Your task to perform on an android device: Search for "dell alienware" on walmart, select the first entry, and add it to the cart. Image 0: 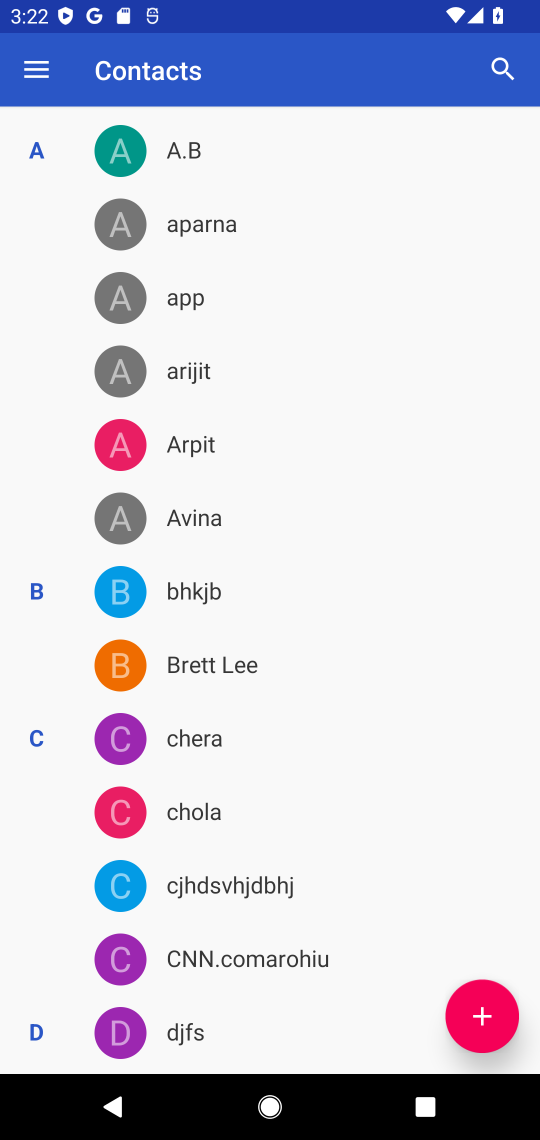
Step 0: press home button
Your task to perform on an android device: Search for "dell alienware" on walmart, select the first entry, and add it to the cart. Image 1: 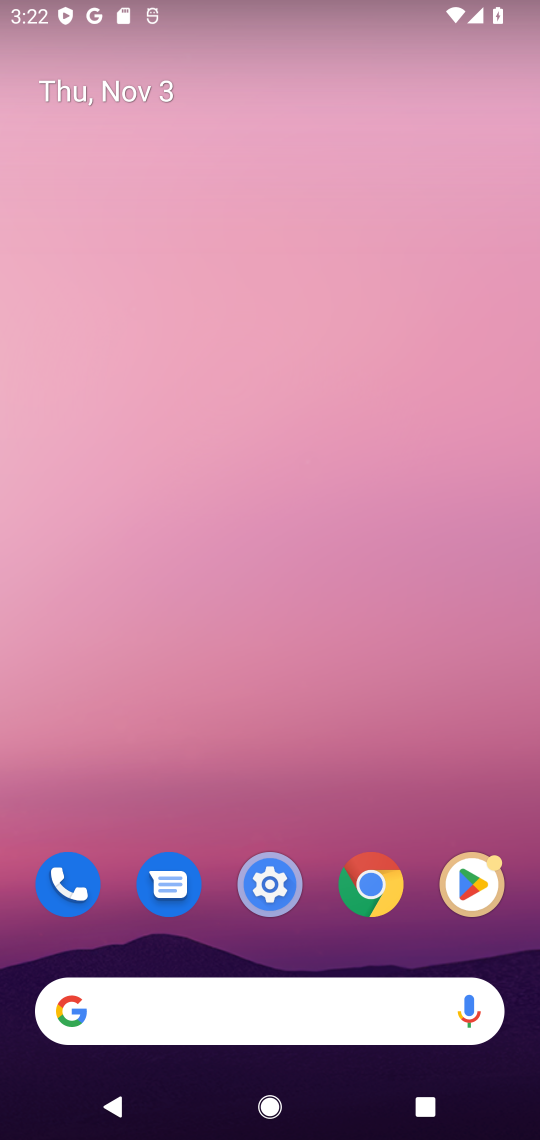
Step 1: click (107, 1001)
Your task to perform on an android device: Search for "dell alienware" on walmart, select the first entry, and add it to the cart. Image 2: 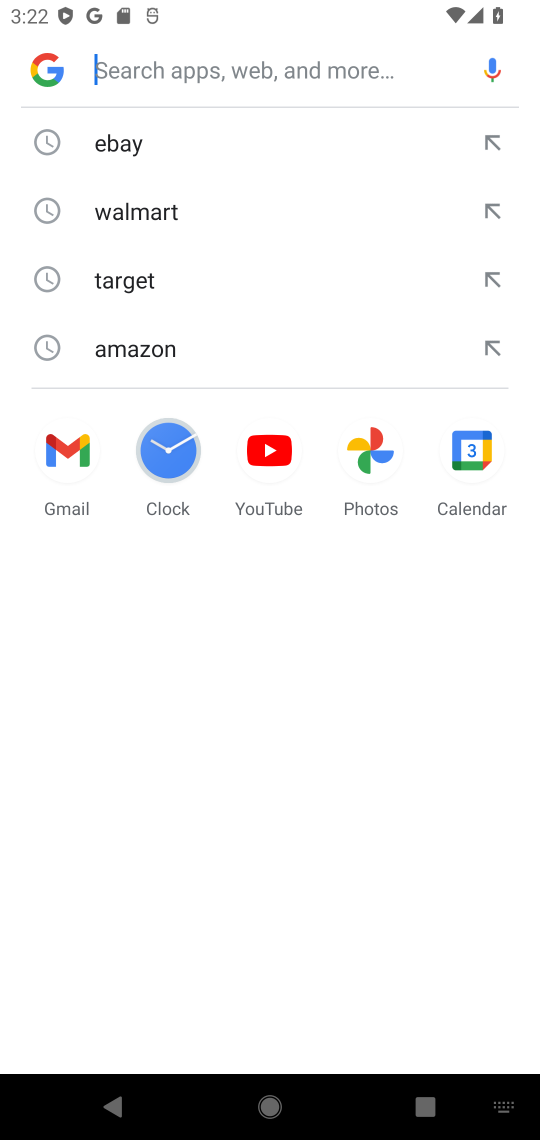
Step 2: type "walmart"
Your task to perform on an android device: Search for "dell alienware" on walmart, select the first entry, and add it to the cart. Image 3: 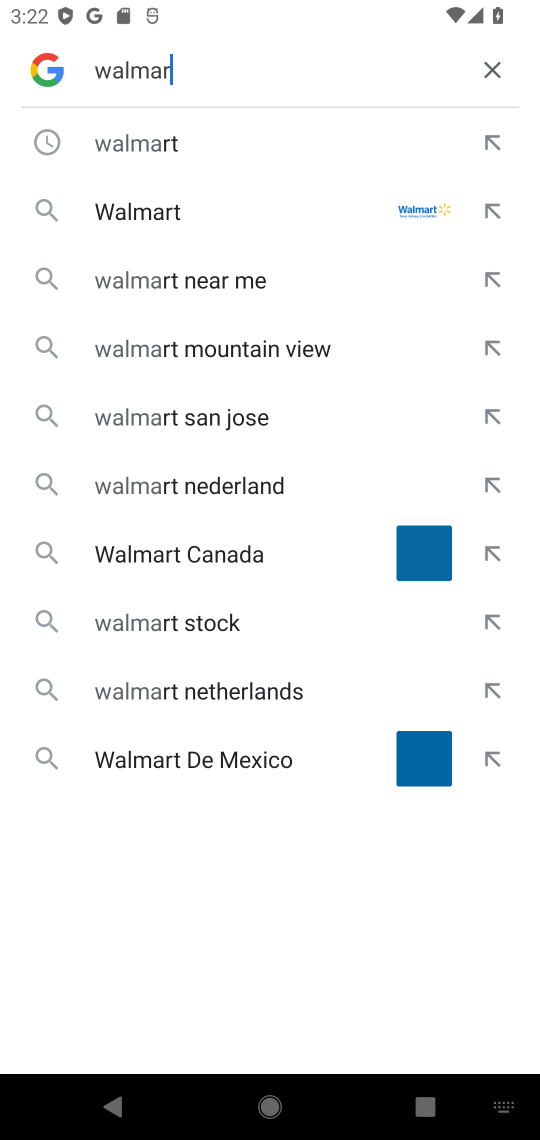
Step 3: press enter
Your task to perform on an android device: Search for "dell alienware" on walmart, select the first entry, and add it to the cart. Image 4: 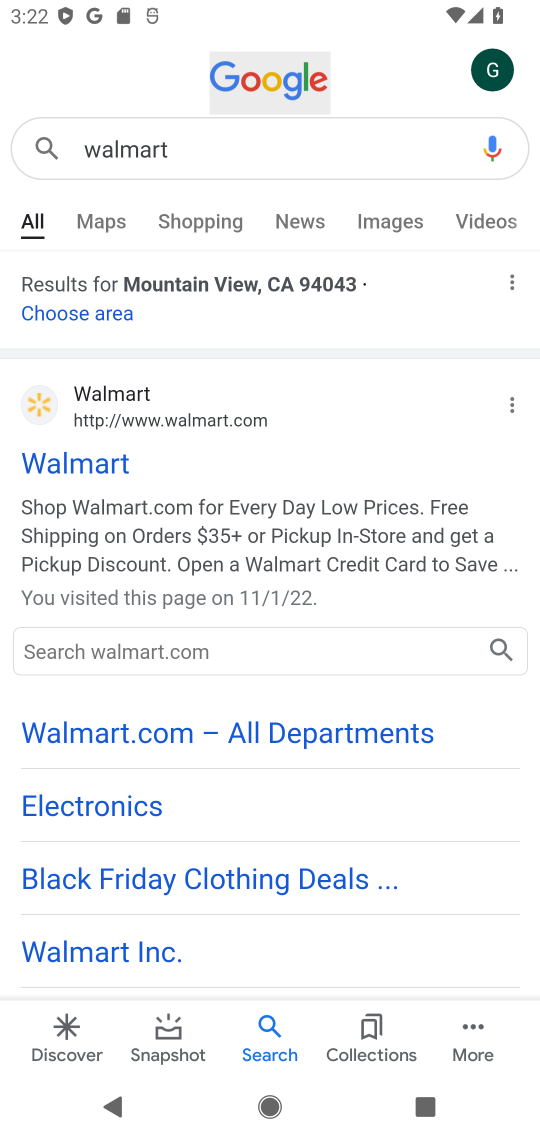
Step 4: click (68, 459)
Your task to perform on an android device: Search for "dell alienware" on walmart, select the first entry, and add it to the cart. Image 5: 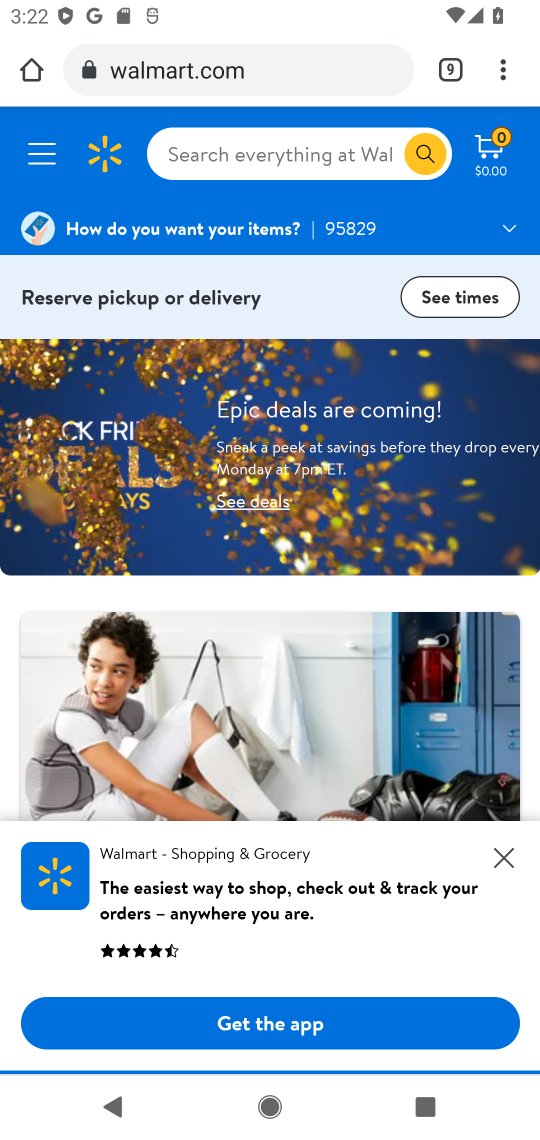
Step 5: click (179, 153)
Your task to perform on an android device: Search for "dell alienware" on walmart, select the first entry, and add it to the cart. Image 6: 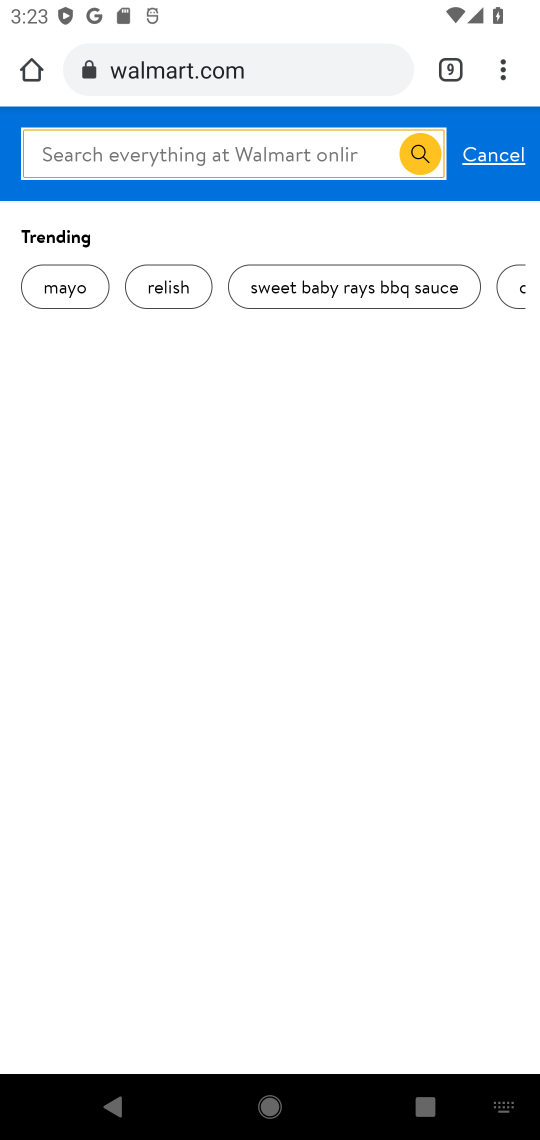
Step 6: type "dell alienware"
Your task to perform on an android device: Search for "dell alienware" on walmart, select the first entry, and add it to the cart. Image 7: 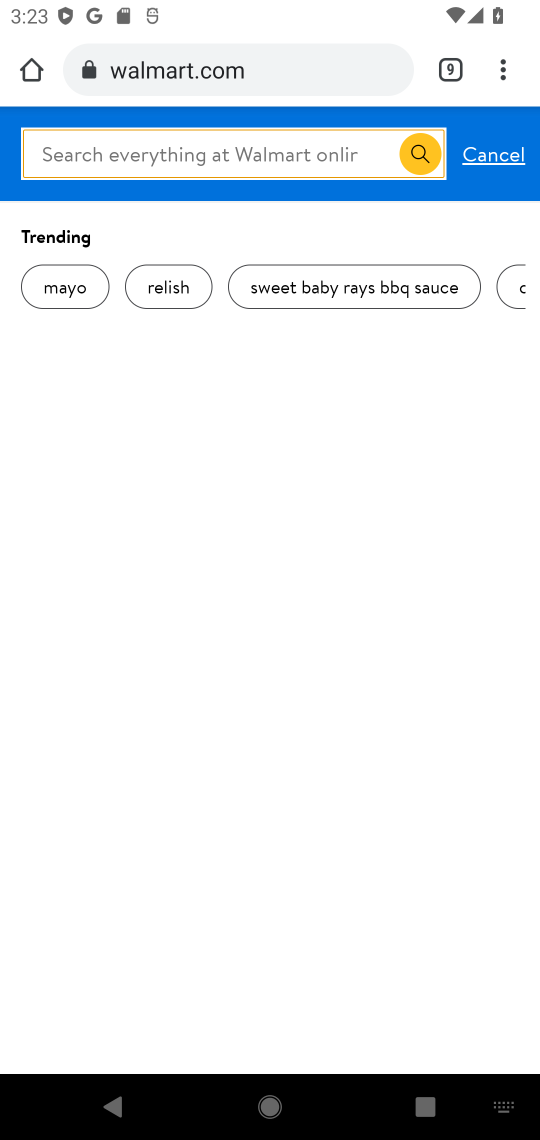
Step 7: press enter
Your task to perform on an android device: Search for "dell alienware" on walmart, select the first entry, and add it to the cart. Image 8: 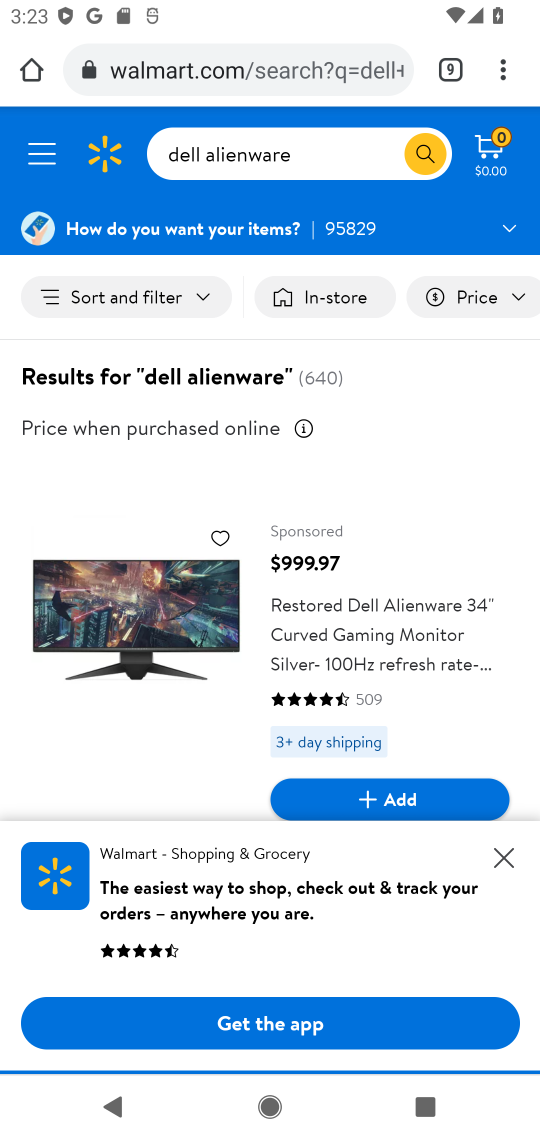
Step 8: click (509, 856)
Your task to perform on an android device: Search for "dell alienware" on walmart, select the first entry, and add it to the cart. Image 9: 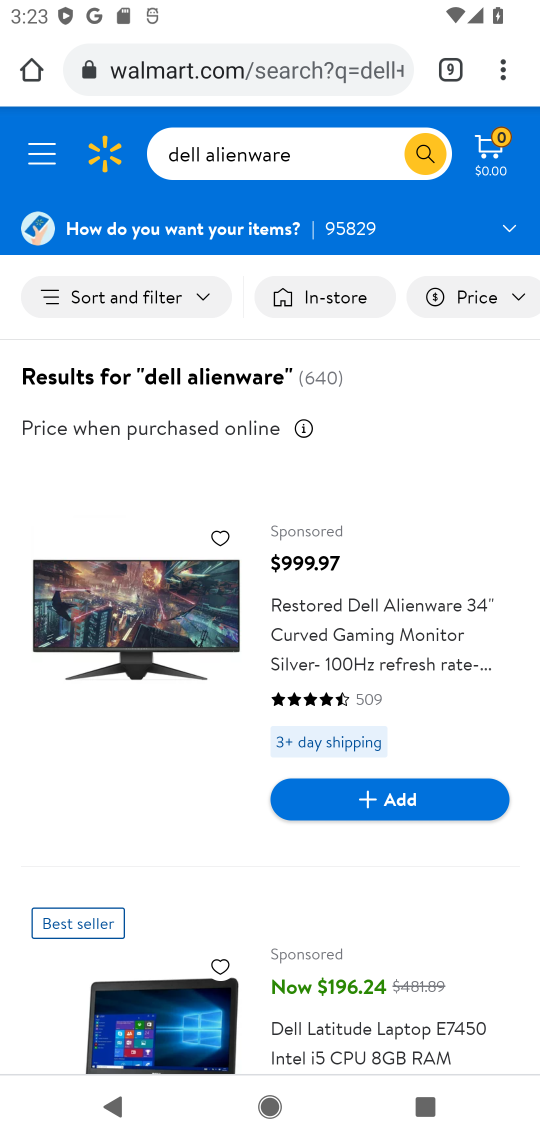
Step 9: drag from (355, 993) to (362, 658)
Your task to perform on an android device: Search for "dell alienware" on walmart, select the first entry, and add it to the cart. Image 10: 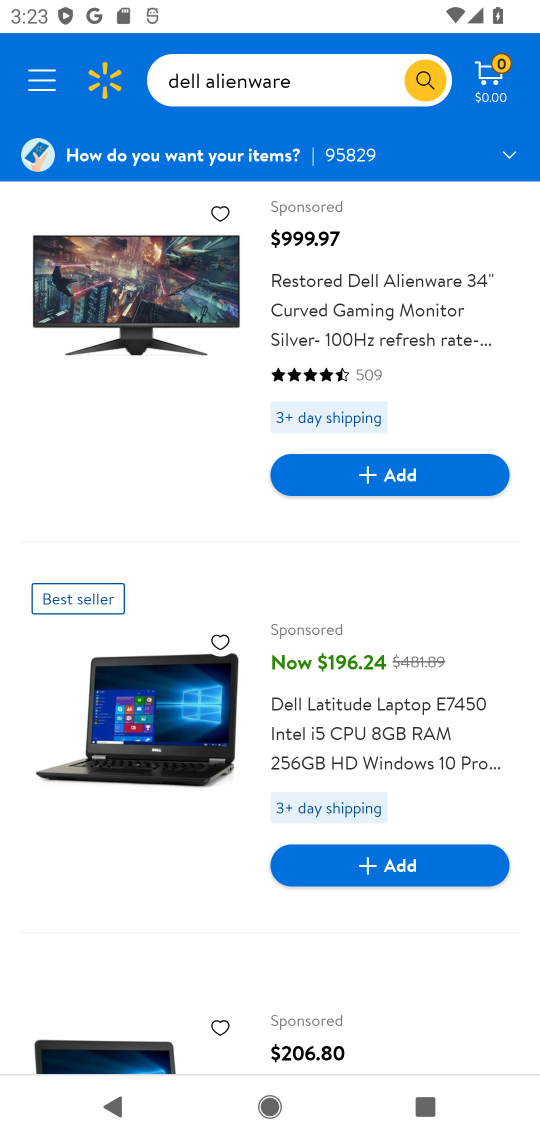
Step 10: drag from (329, 982) to (374, 599)
Your task to perform on an android device: Search for "dell alienware" on walmart, select the first entry, and add it to the cart. Image 11: 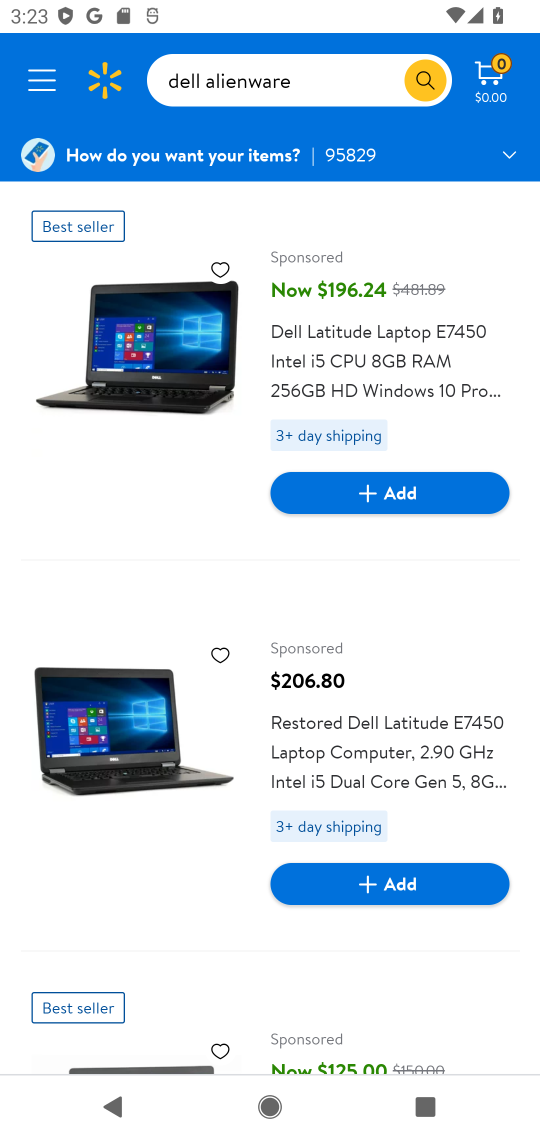
Step 11: drag from (336, 973) to (382, 537)
Your task to perform on an android device: Search for "dell alienware" on walmart, select the first entry, and add it to the cart. Image 12: 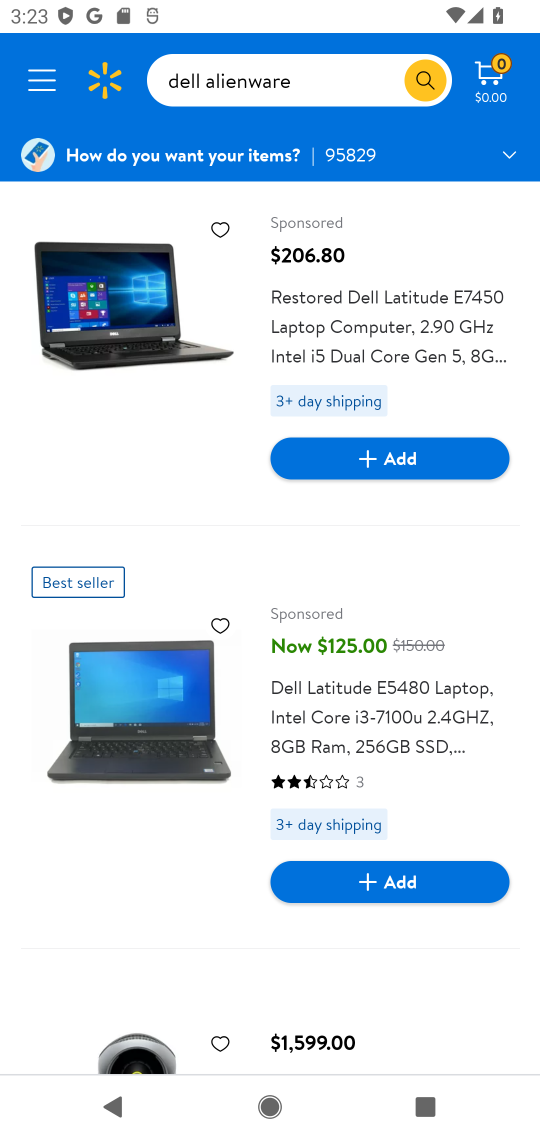
Step 12: drag from (365, 995) to (412, 541)
Your task to perform on an android device: Search for "dell alienware" on walmart, select the first entry, and add it to the cart. Image 13: 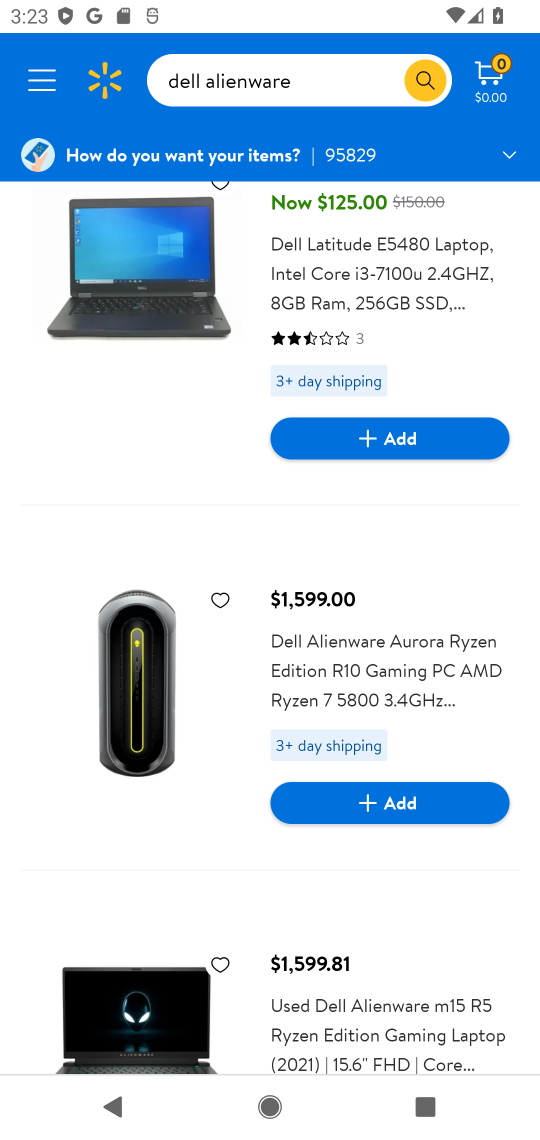
Step 13: drag from (361, 950) to (361, 649)
Your task to perform on an android device: Search for "dell alienware" on walmart, select the first entry, and add it to the cart. Image 14: 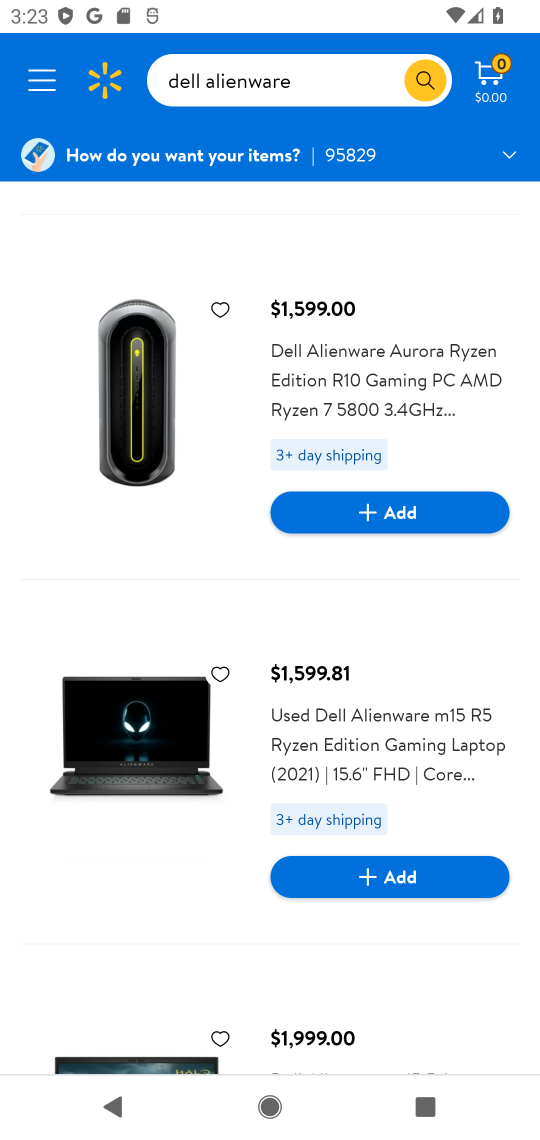
Step 14: click (419, 505)
Your task to perform on an android device: Search for "dell alienware" on walmart, select the first entry, and add it to the cart. Image 15: 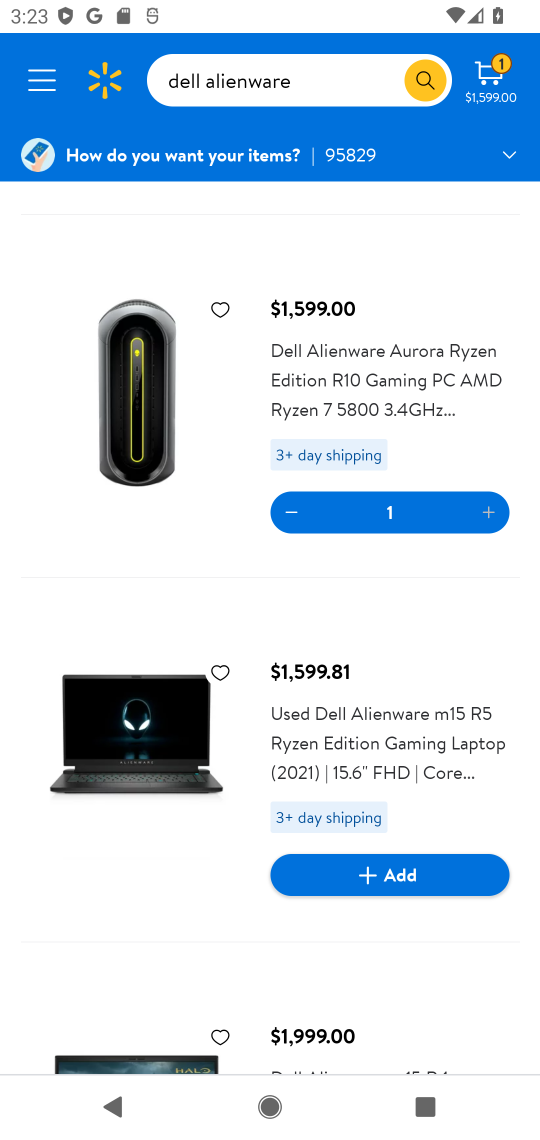
Step 15: task complete